Your task to perform on an android device: Go to display settings Image 0: 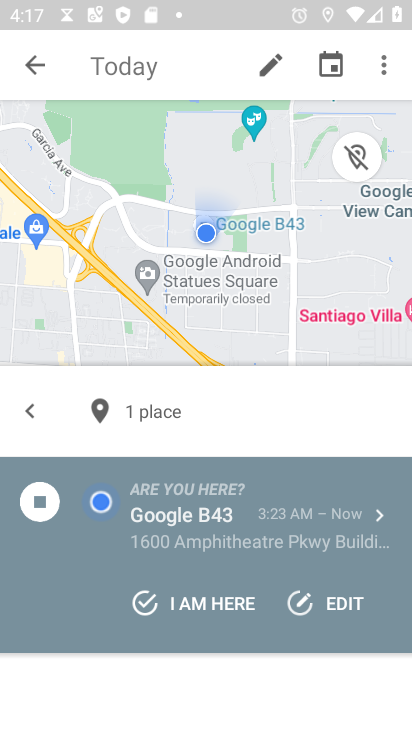
Step 0: press home button
Your task to perform on an android device: Go to display settings Image 1: 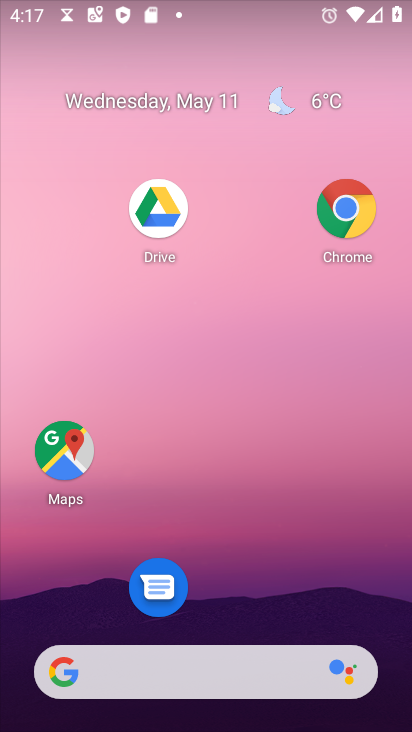
Step 1: drag from (328, 561) to (211, 206)
Your task to perform on an android device: Go to display settings Image 2: 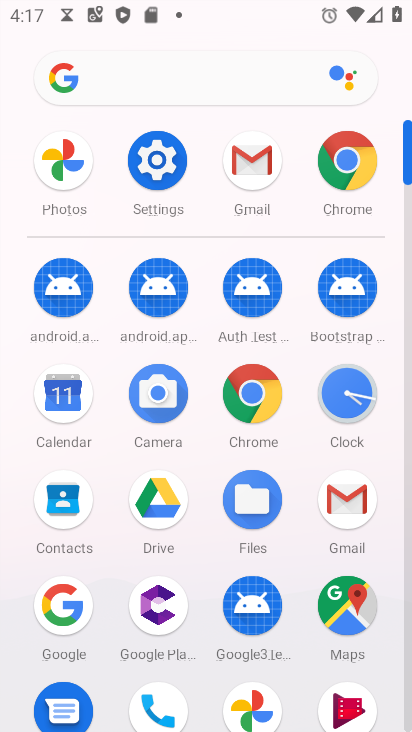
Step 2: click (154, 162)
Your task to perform on an android device: Go to display settings Image 3: 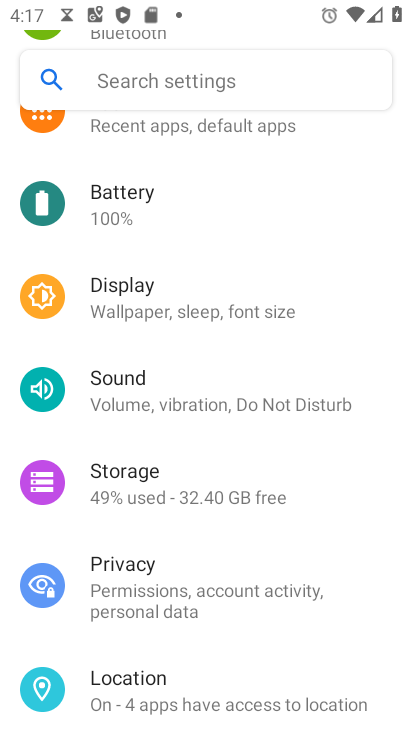
Step 3: click (176, 306)
Your task to perform on an android device: Go to display settings Image 4: 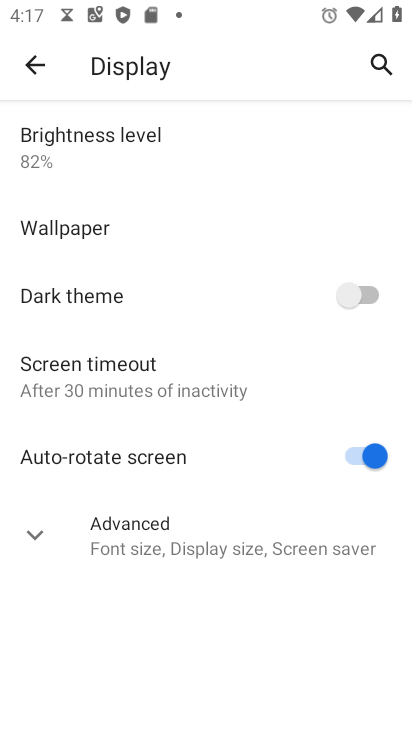
Step 4: task complete